Your task to perform on an android device: add a contact in the contacts app Image 0: 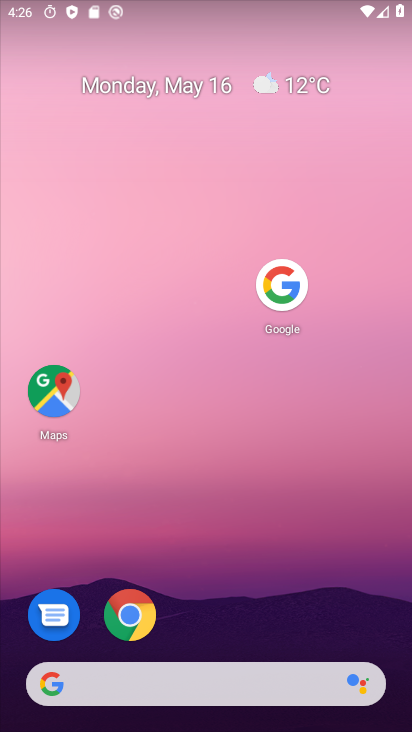
Step 0: drag from (222, 649) to (294, 103)
Your task to perform on an android device: add a contact in the contacts app Image 1: 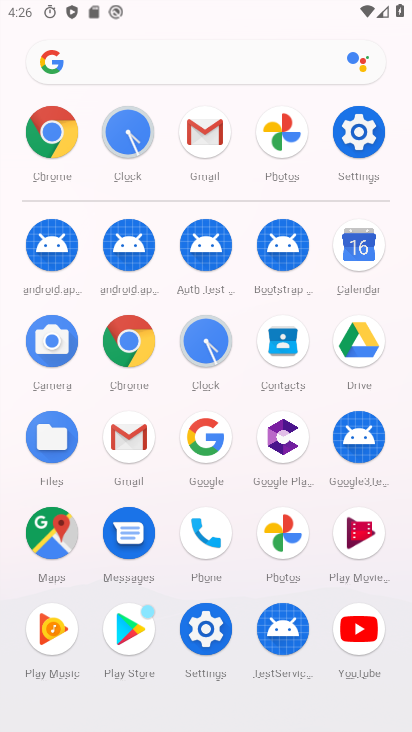
Step 1: click (172, 532)
Your task to perform on an android device: add a contact in the contacts app Image 2: 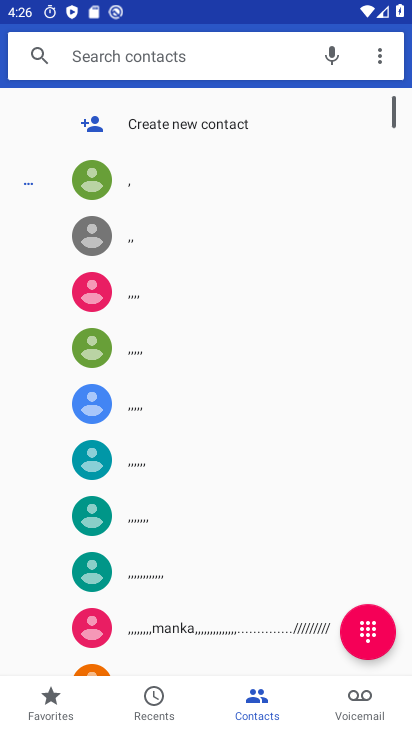
Step 2: click (131, 115)
Your task to perform on an android device: add a contact in the contacts app Image 3: 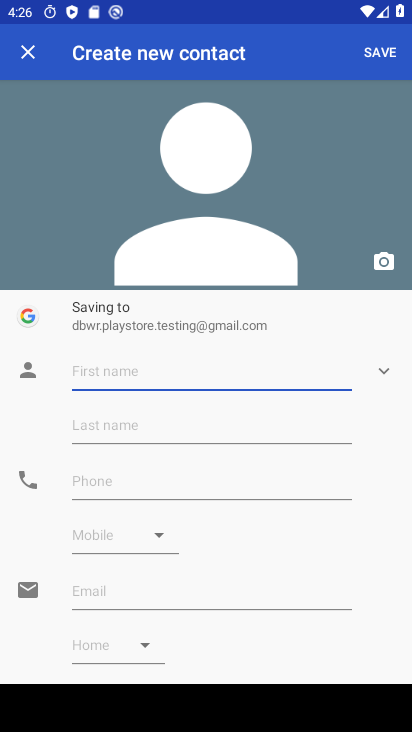
Step 3: type "kinghh"
Your task to perform on an android device: add a contact in the contacts app Image 4: 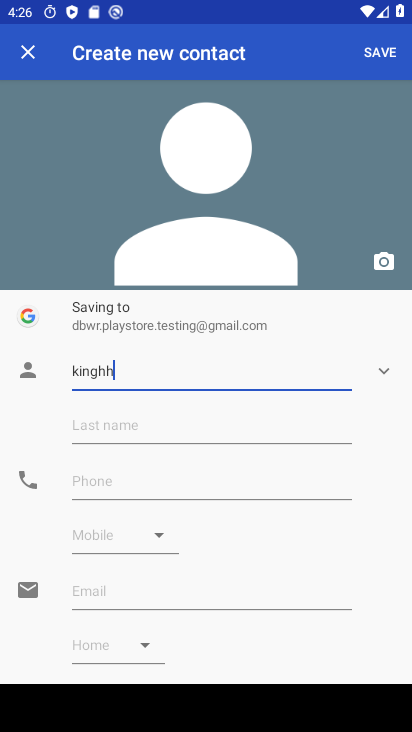
Step 4: click (123, 486)
Your task to perform on an android device: add a contact in the contacts app Image 5: 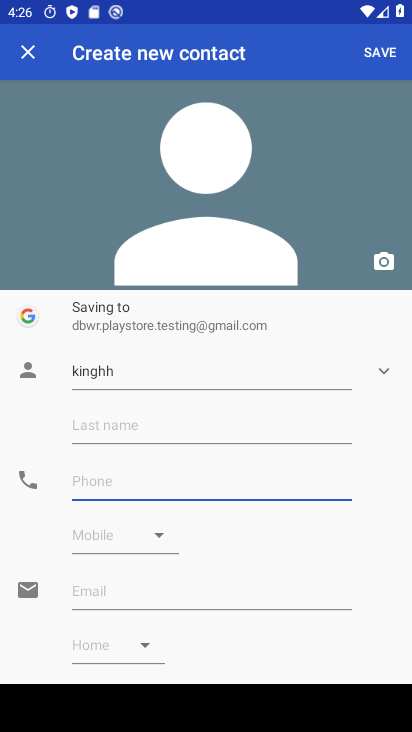
Step 5: type "8765678"
Your task to perform on an android device: add a contact in the contacts app Image 6: 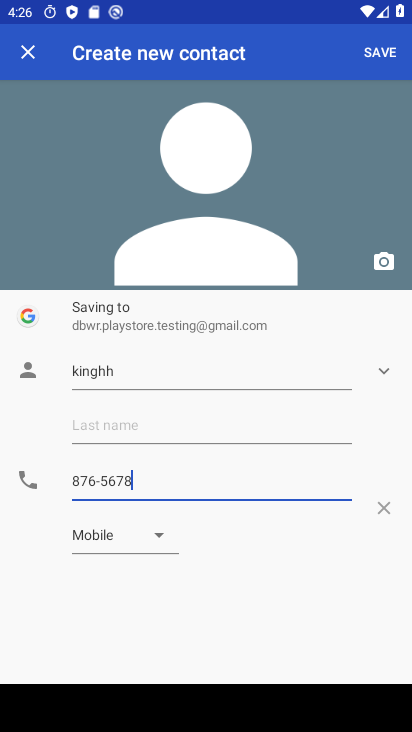
Step 6: type ""
Your task to perform on an android device: add a contact in the contacts app Image 7: 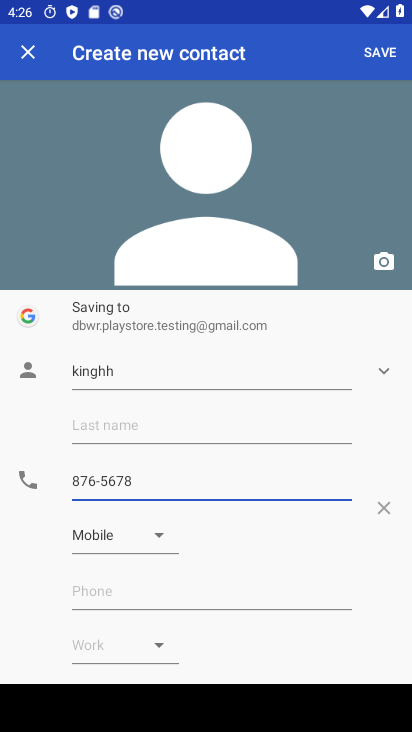
Step 7: click (384, 53)
Your task to perform on an android device: add a contact in the contacts app Image 8: 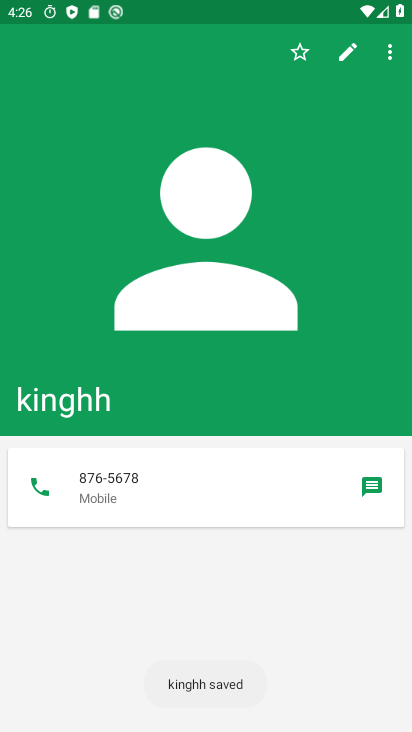
Step 8: task complete